Your task to perform on an android device: turn off data saver in the chrome app Image 0: 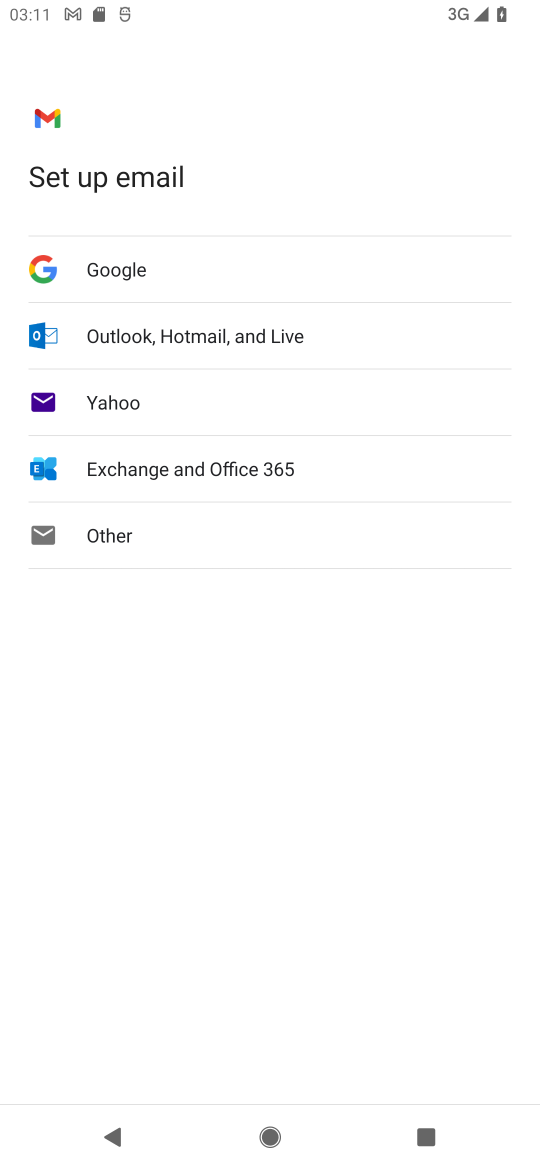
Step 0: press home button
Your task to perform on an android device: turn off data saver in the chrome app Image 1: 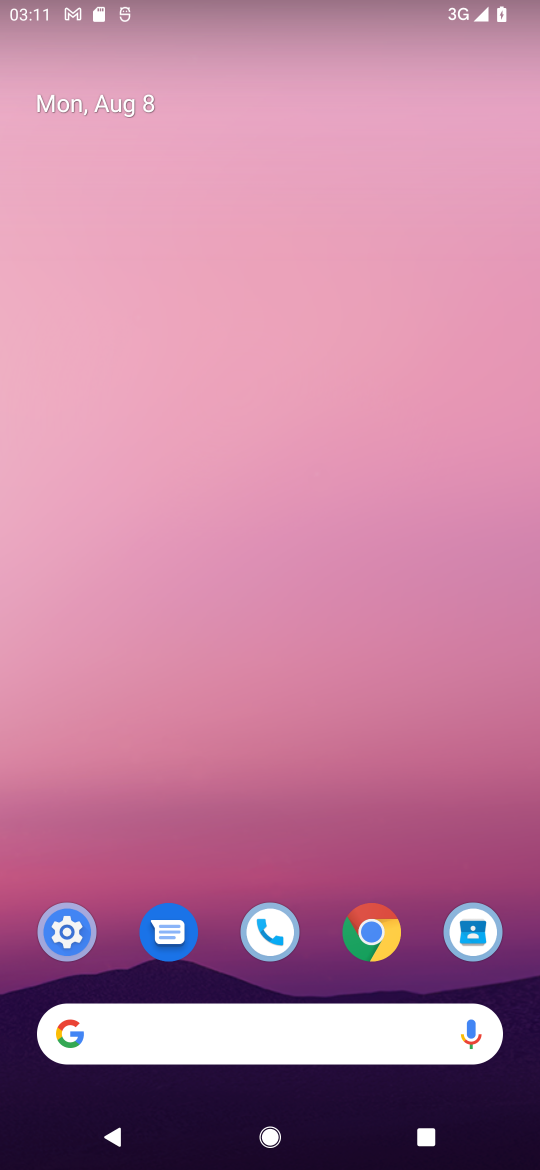
Step 1: drag from (332, 882) to (292, 10)
Your task to perform on an android device: turn off data saver in the chrome app Image 2: 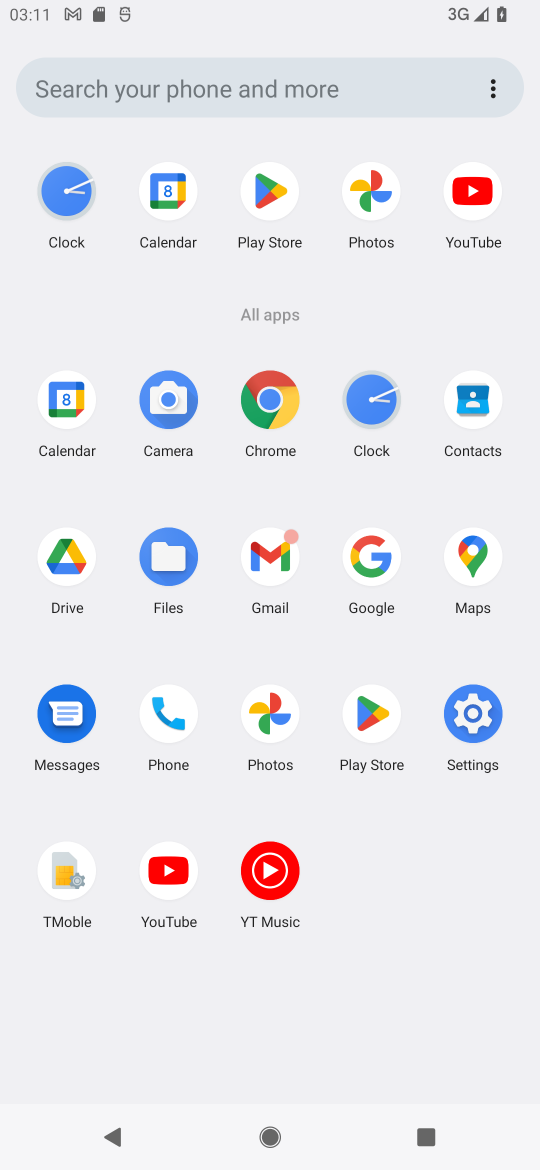
Step 2: click (260, 404)
Your task to perform on an android device: turn off data saver in the chrome app Image 3: 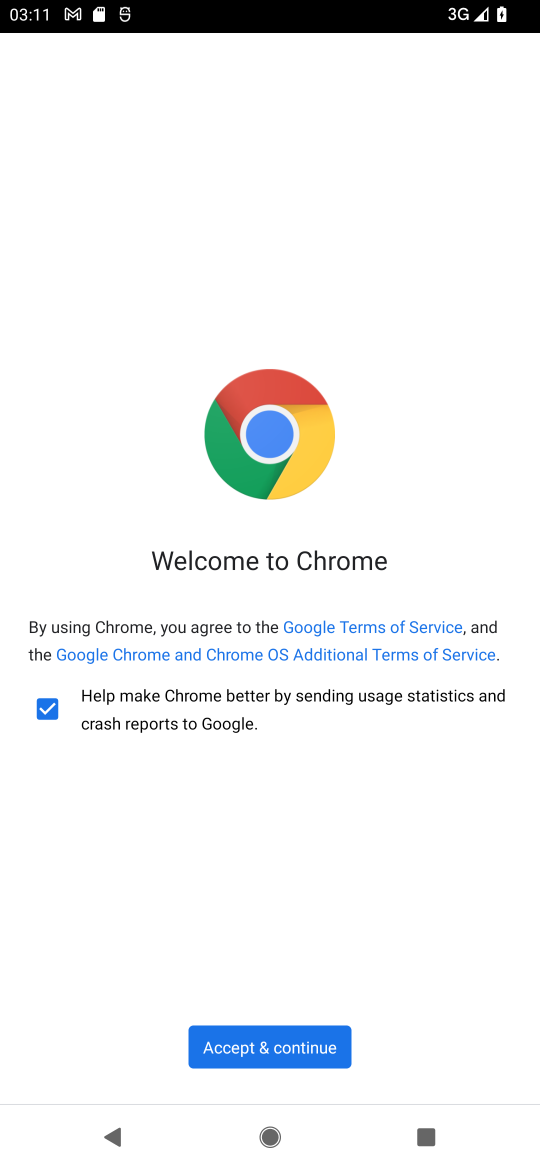
Step 3: click (257, 1057)
Your task to perform on an android device: turn off data saver in the chrome app Image 4: 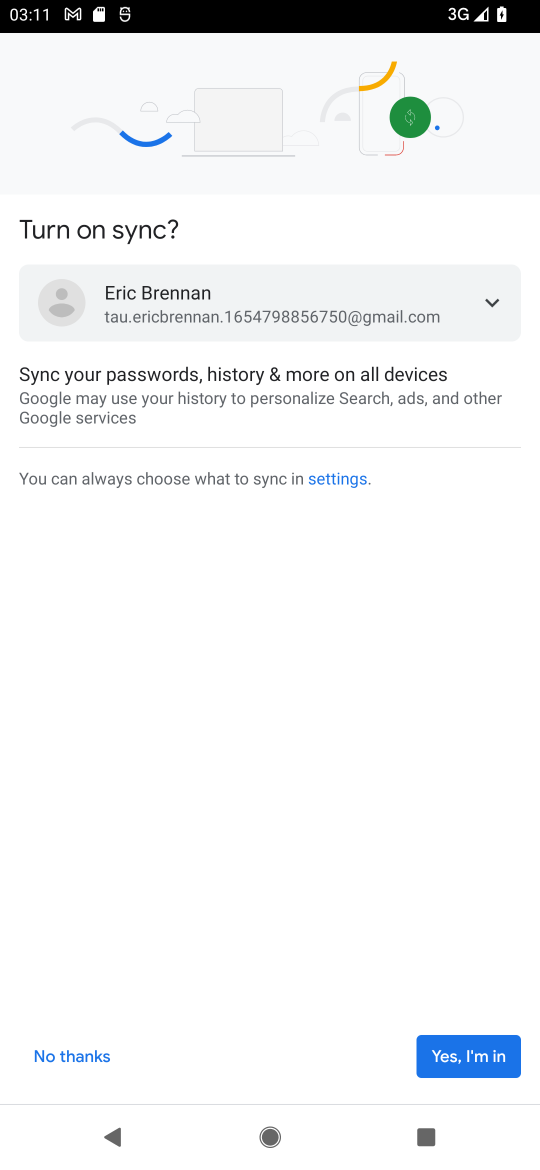
Step 4: click (61, 1033)
Your task to perform on an android device: turn off data saver in the chrome app Image 5: 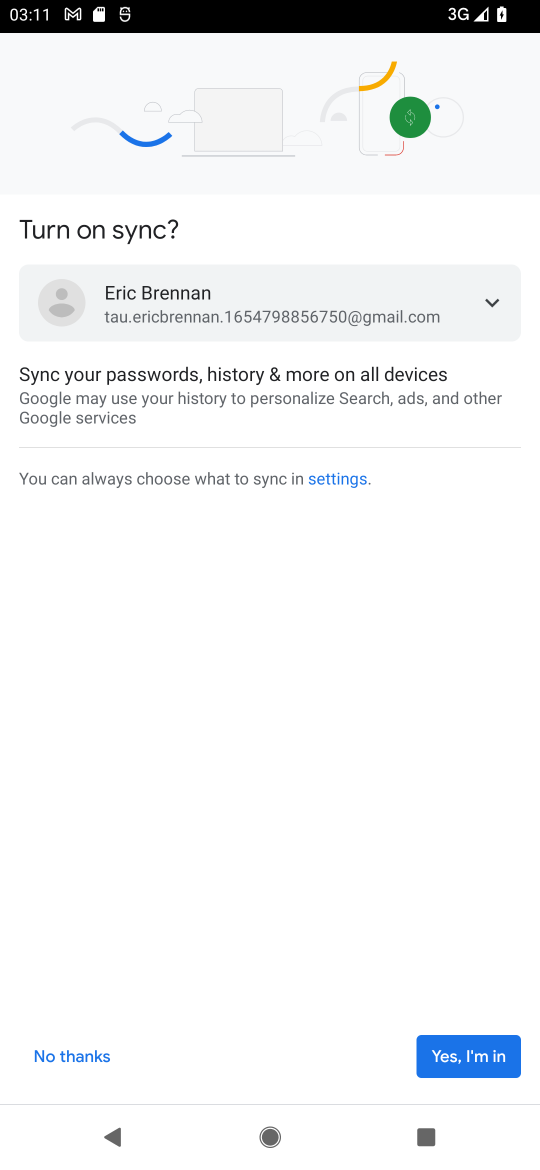
Step 5: click (75, 1047)
Your task to perform on an android device: turn off data saver in the chrome app Image 6: 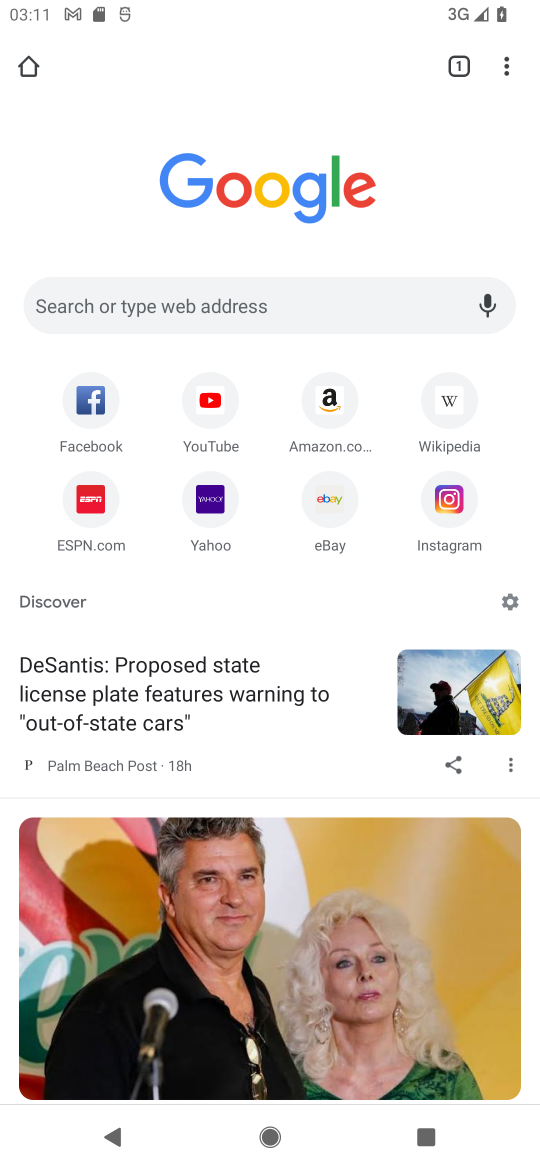
Step 6: drag from (505, 63) to (254, 567)
Your task to perform on an android device: turn off data saver in the chrome app Image 7: 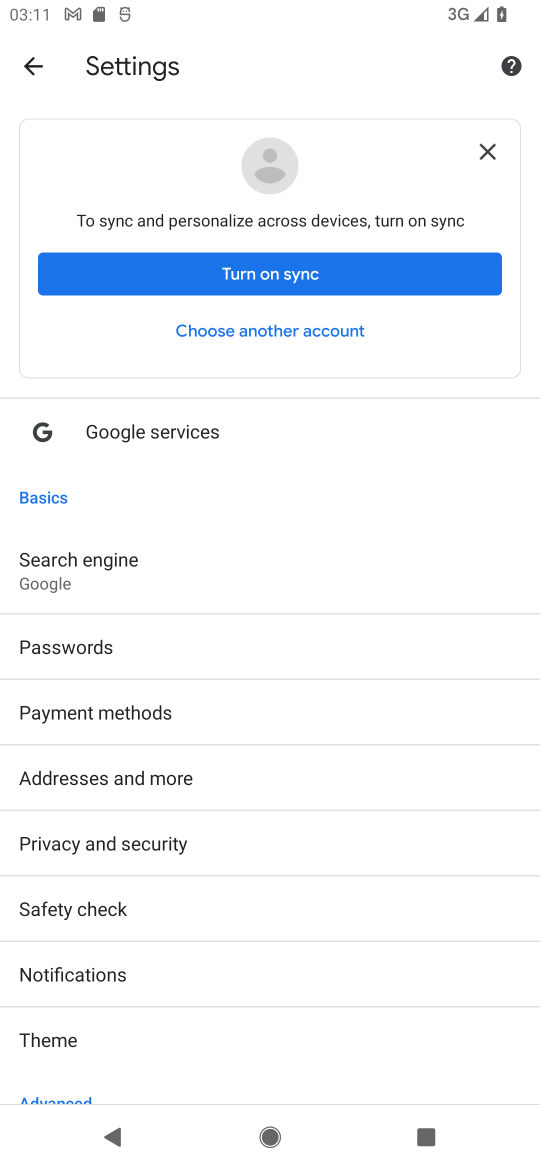
Step 7: drag from (195, 947) to (291, 200)
Your task to perform on an android device: turn off data saver in the chrome app Image 8: 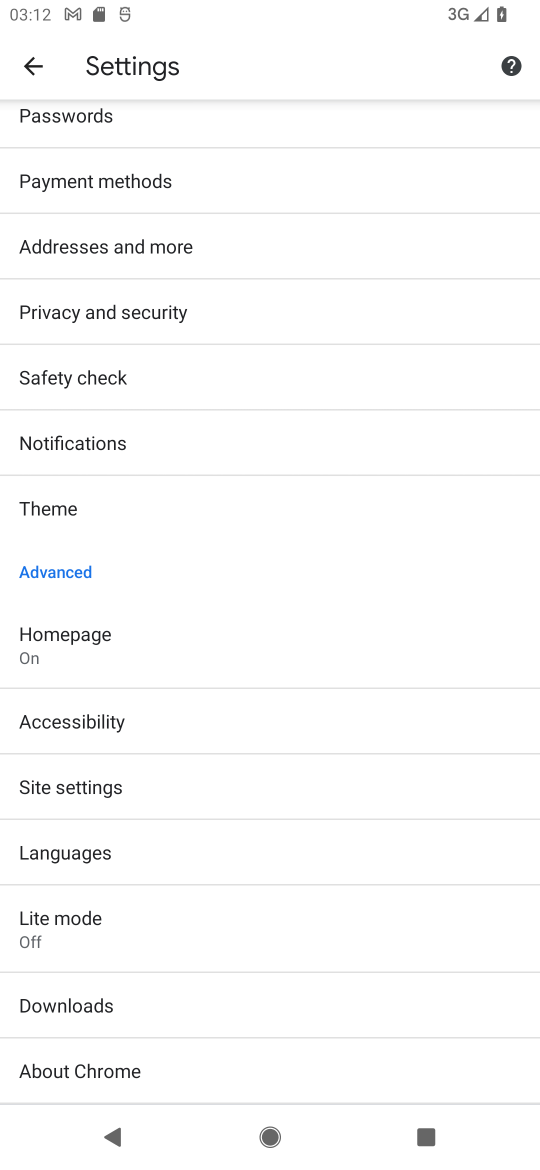
Step 8: click (76, 927)
Your task to perform on an android device: turn off data saver in the chrome app Image 9: 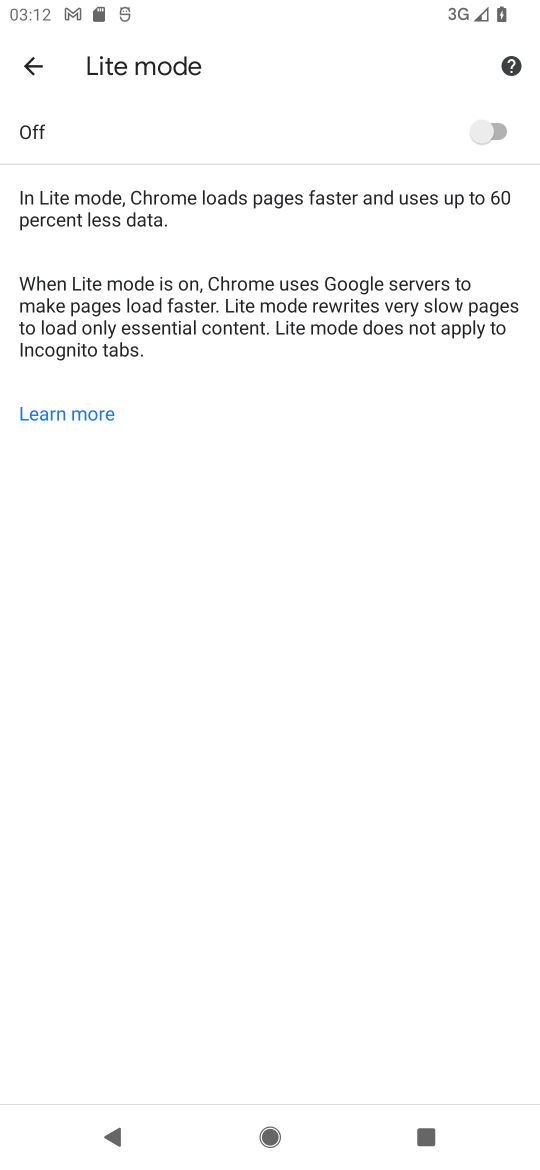
Step 9: task complete